Your task to perform on an android device: Open settings on Google Maps Image 0: 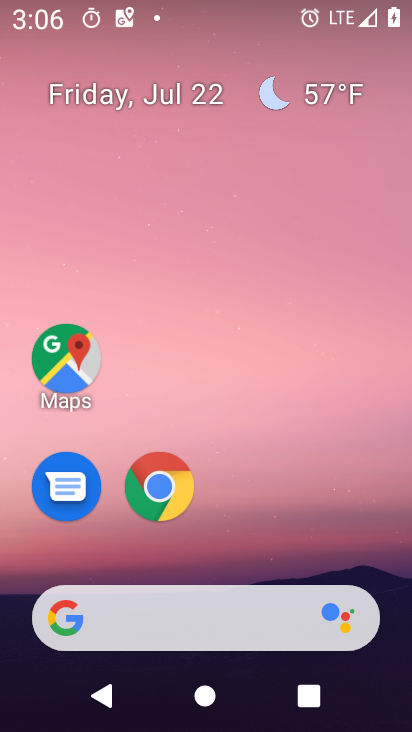
Step 0: press home button
Your task to perform on an android device: Open settings on Google Maps Image 1: 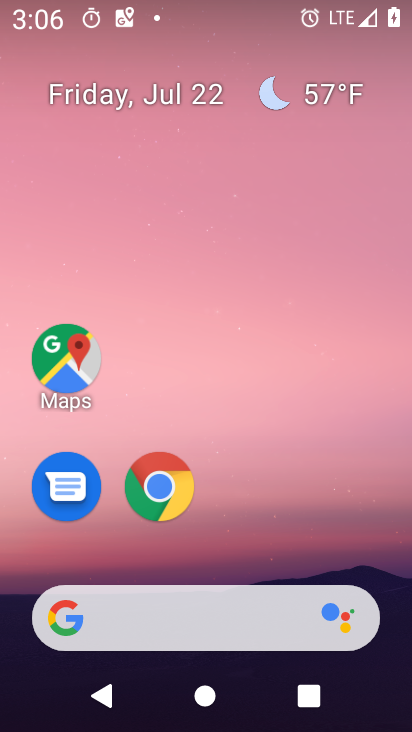
Step 1: drag from (360, 525) to (344, 176)
Your task to perform on an android device: Open settings on Google Maps Image 2: 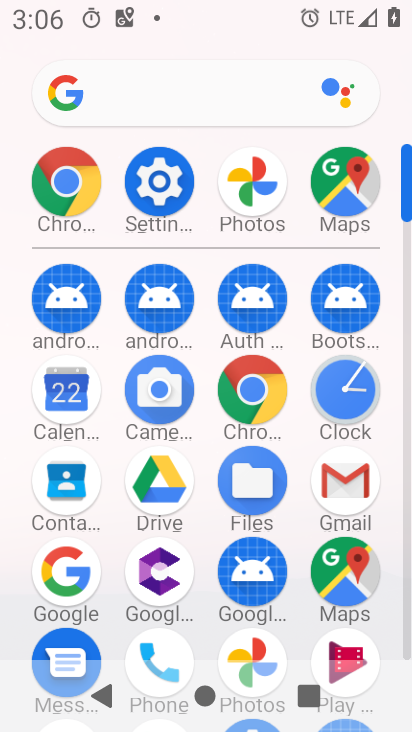
Step 2: click (346, 188)
Your task to perform on an android device: Open settings on Google Maps Image 3: 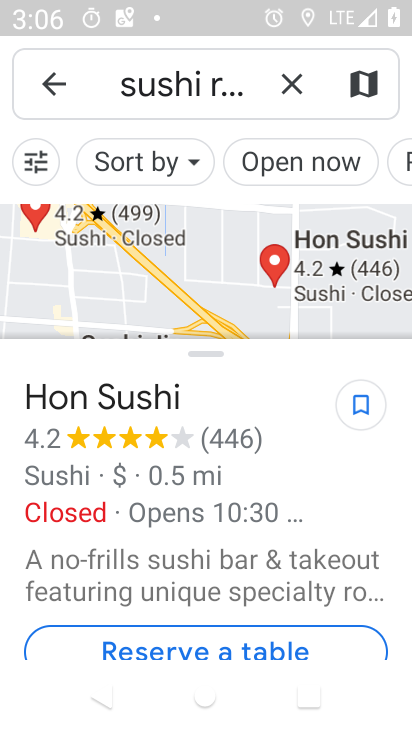
Step 3: press back button
Your task to perform on an android device: Open settings on Google Maps Image 4: 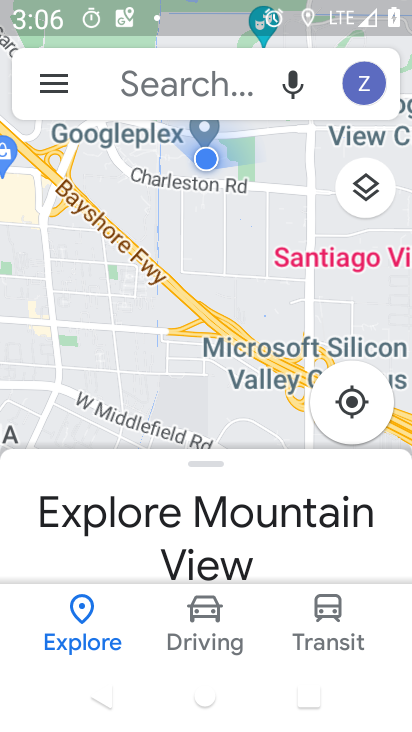
Step 4: click (51, 81)
Your task to perform on an android device: Open settings on Google Maps Image 5: 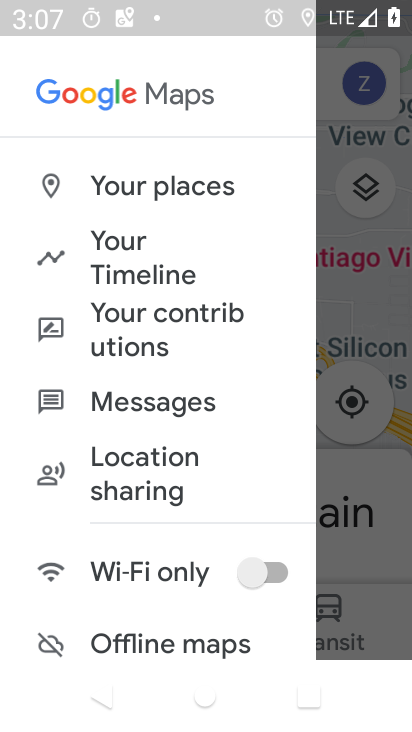
Step 5: drag from (236, 444) to (250, 312)
Your task to perform on an android device: Open settings on Google Maps Image 6: 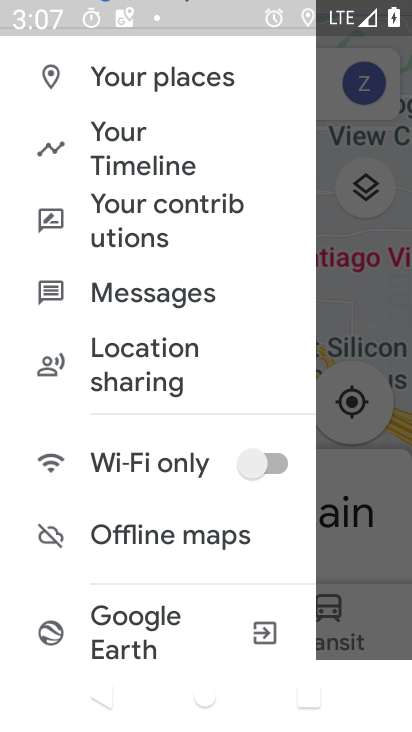
Step 6: drag from (236, 410) to (245, 322)
Your task to perform on an android device: Open settings on Google Maps Image 7: 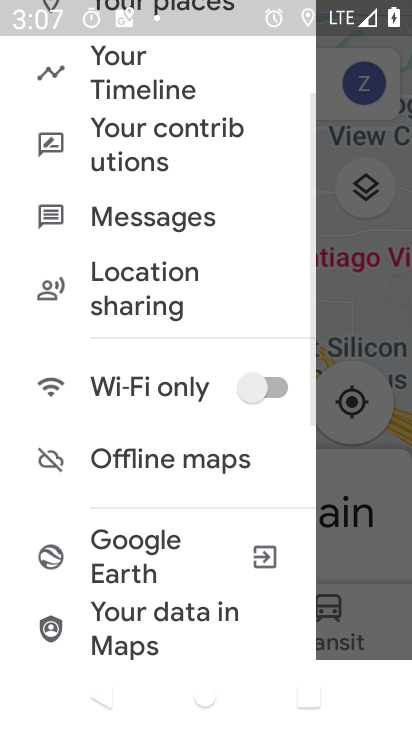
Step 7: drag from (225, 481) to (226, 352)
Your task to perform on an android device: Open settings on Google Maps Image 8: 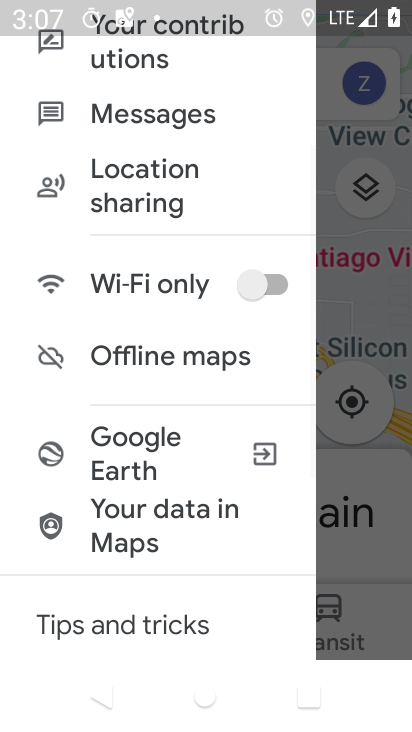
Step 8: drag from (208, 528) to (211, 436)
Your task to perform on an android device: Open settings on Google Maps Image 9: 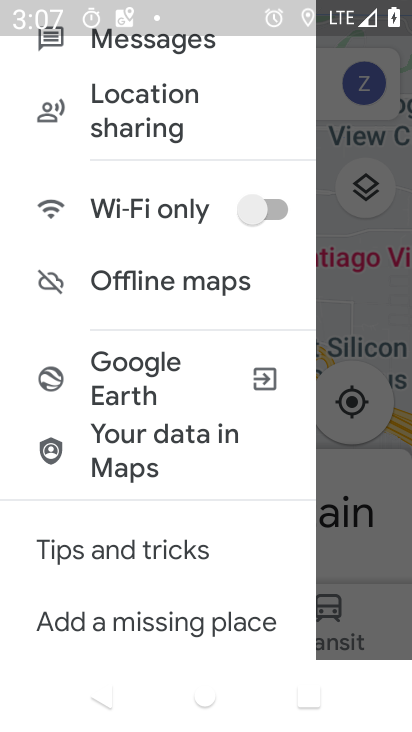
Step 9: drag from (213, 553) to (216, 441)
Your task to perform on an android device: Open settings on Google Maps Image 10: 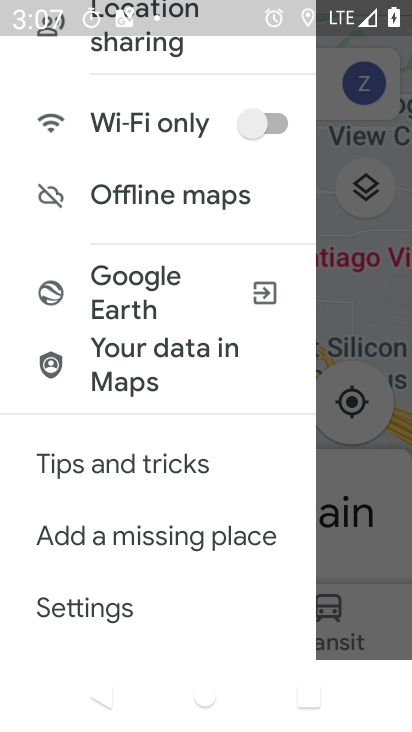
Step 10: click (201, 605)
Your task to perform on an android device: Open settings on Google Maps Image 11: 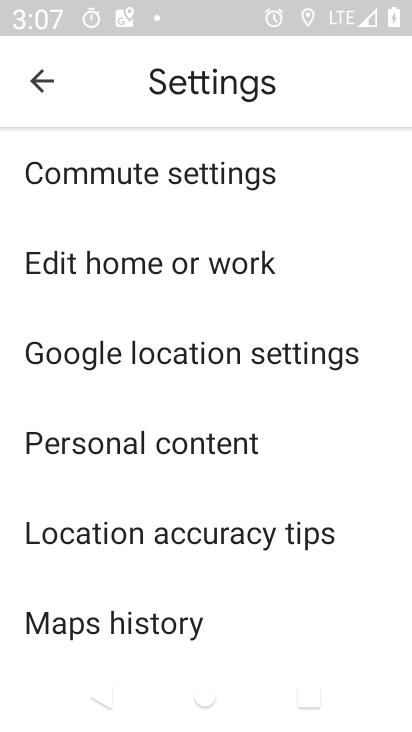
Step 11: task complete